Your task to perform on an android device: Show me popular games on the Play Store Image 0: 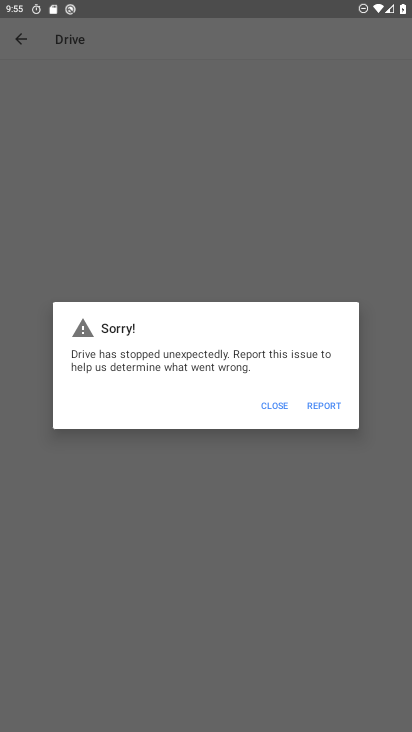
Step 0: drag from (216, 665) to (200, 400)
Your task to perform on an android device: Show me popular games on the Play Store Image 1: 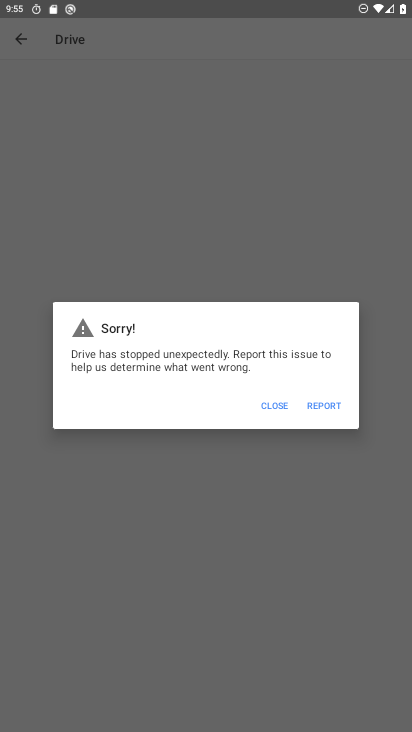
Step 1: press home button
Your task to perform on an android device: Show me popular games on the Play Store Image 2: 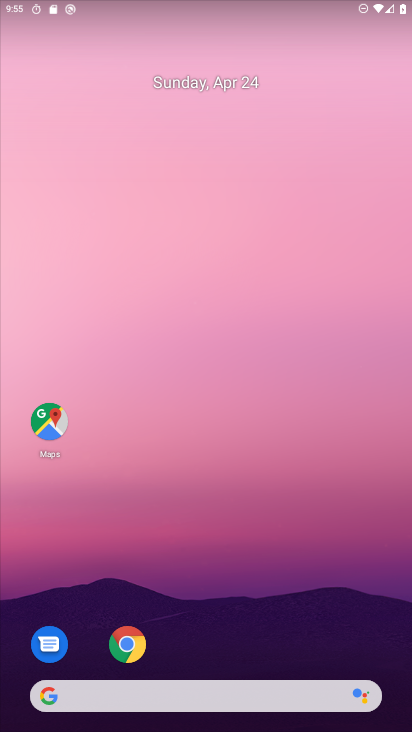
Step 2: drag from (223, 681) to (195, 128)
Your task to perform on an android device: Show me popular games on the Play Store Image 3: 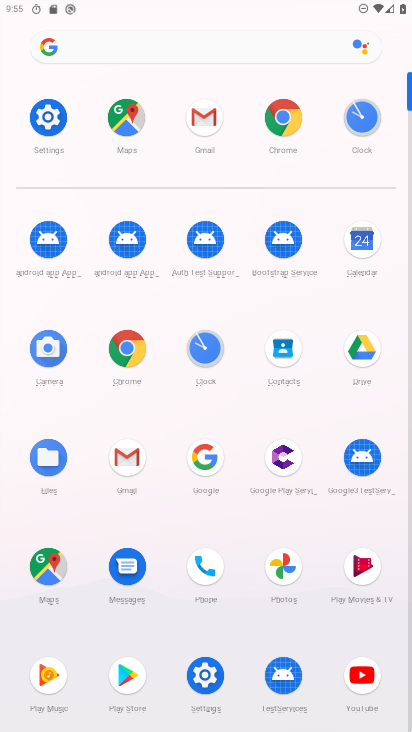
Step 3: click (117, 669)
Your task to perform on an android device: Show me popular games on the Play Store Image 4: 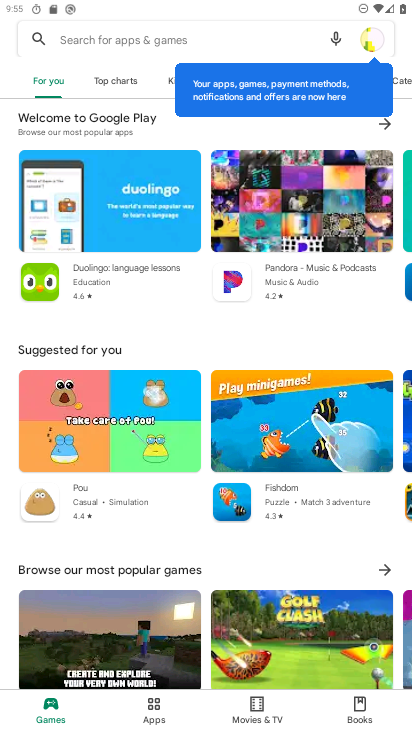
Step 4: drag from (50, 80) to (243, 90)
Your task to perform on an android device: Show me popular games on the Play Store Image 5: 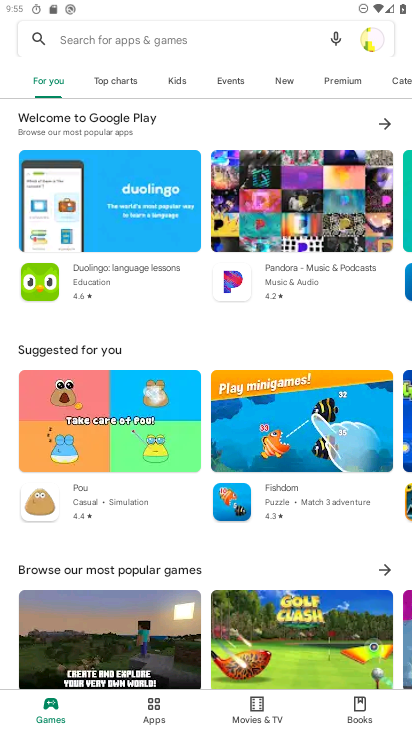
Step 5: click (51, 75)
Your task to perform on an android device: Show me popular games on the Play Store Image 6: 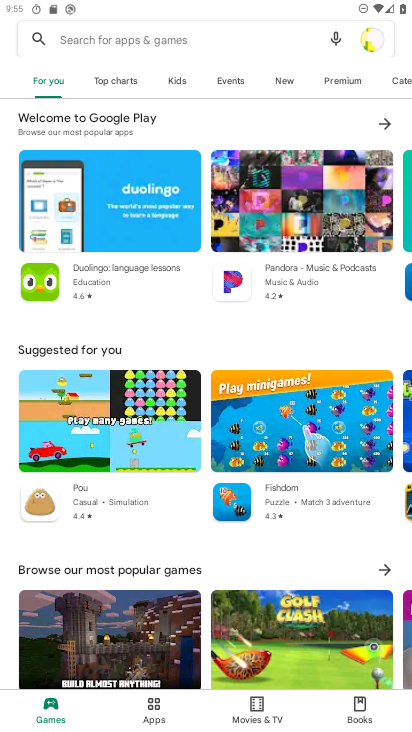
Step 6: drag from (121, 500) to (85, 143)
Your task to perform on an android device: Show me popular games on the Play Store Image 7: 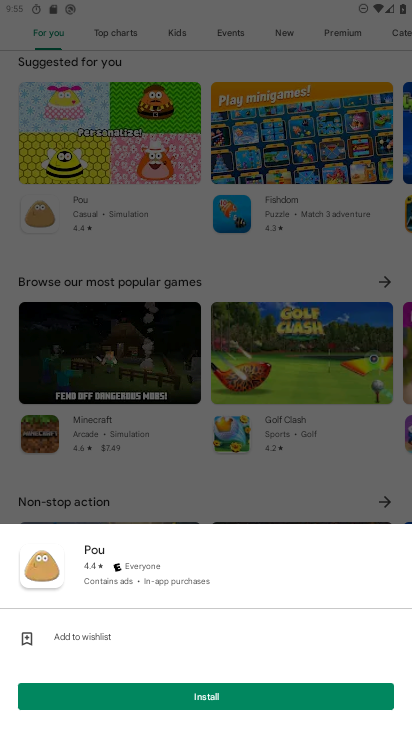
Step 7: click (273, 489)
Your task to perform on an android device: Show me popular games on the Play Store Image 8: 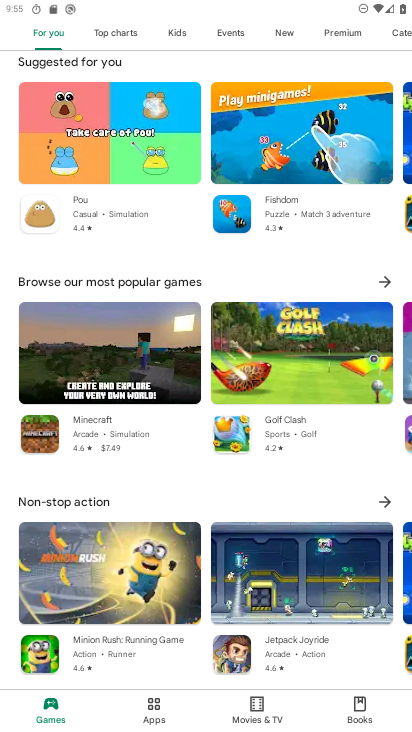
Step 8: click (376, 279)
Your task to perform on an android device: Show me popular games on the Play Store Image 9: 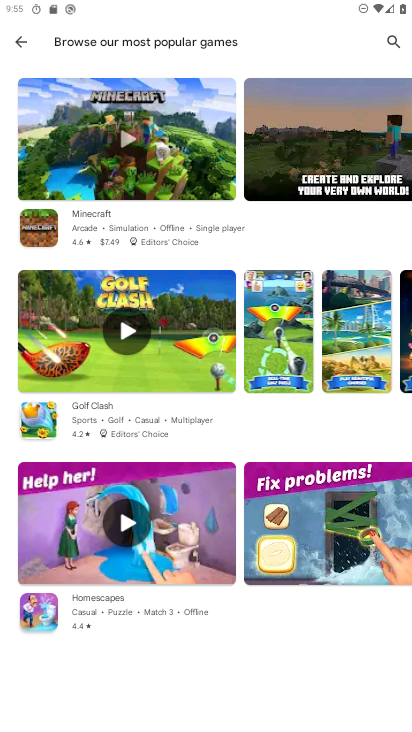
Step 9: task complete